Your task to perform on an android device: Search for seafood restaurants on Google Maps Image 0: 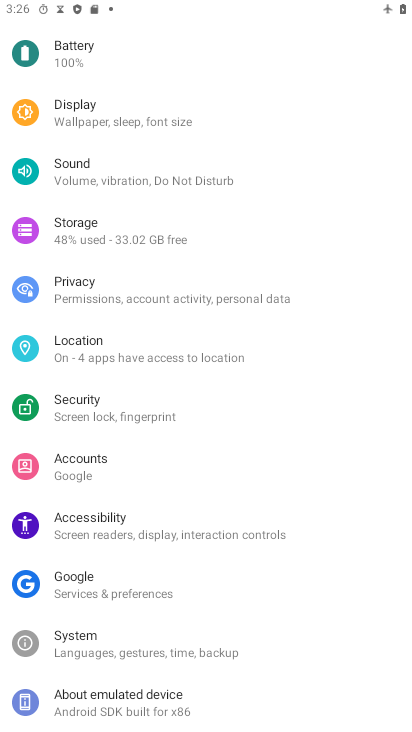
Step 0: press home button
Your task to perform on an android device: Search for seafood restaurants on Google Maps Image 1: 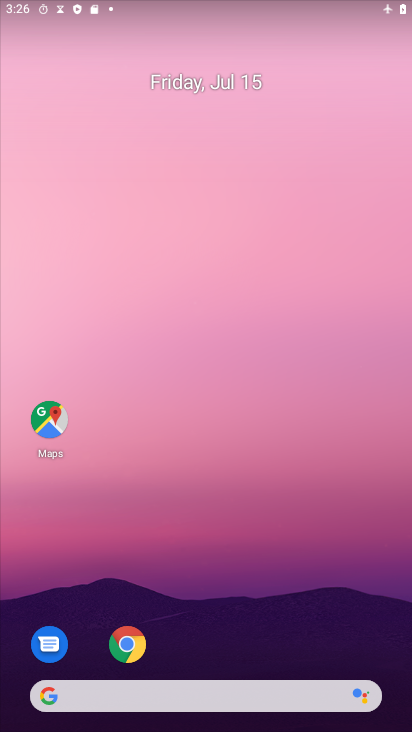
Step 1: drag from (217, 577) to (212, 24)
Your task to perform on an android device: Search for seafood restaurants on Google Maps Image 2: 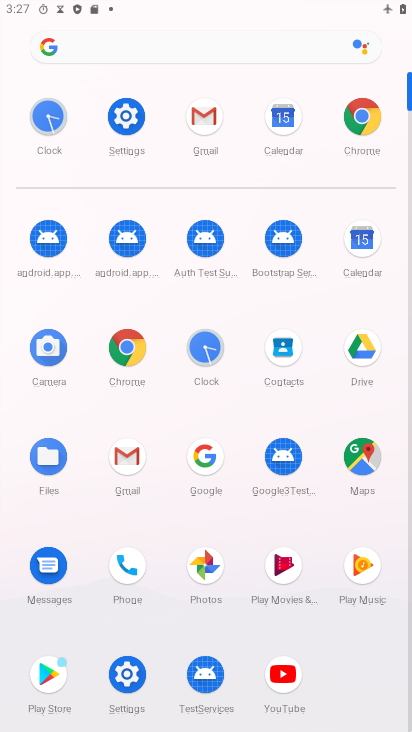
Step 2: click (363, 459)
Your task to perform on an android device: Search for seafood restaurants on Google Maps Image 3: 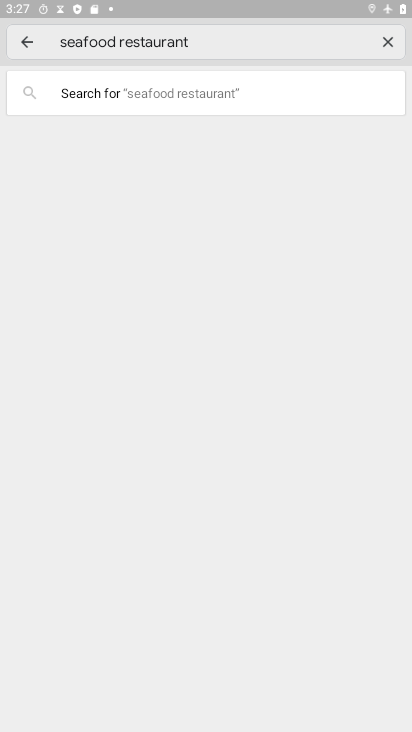
Step 3: click (392, 38)
Your task to perform on an android device: Search for seafood restaurants on Google Maps Image 4: 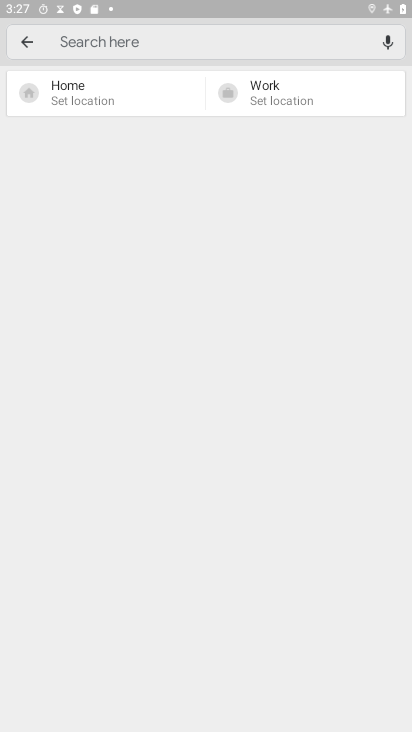
Step 4: click (249, 42)
Your task to perform on an android device: Search for seafood restaurants on Google Maps Image 5: 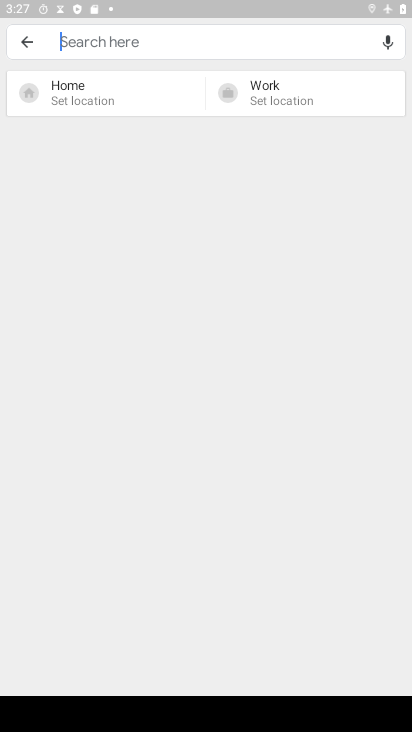
Step 5: task complete